Your task to perform on an android device: toggle airplane mode Image 0: 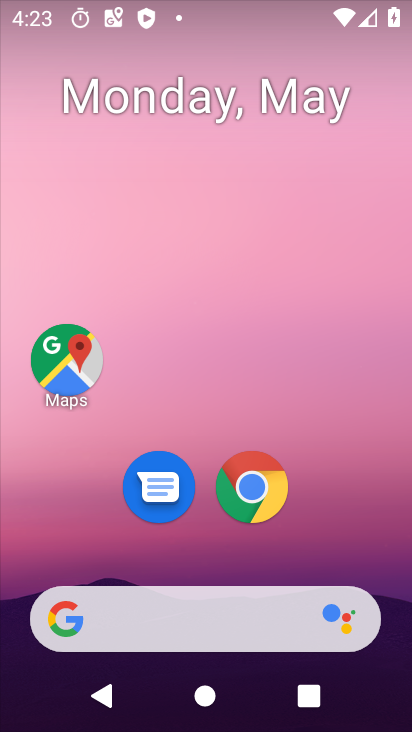
Step 0: drag from (210, 583) to (182, 392)
Your task to perform on an android device: toggle airplane mode Image 1: 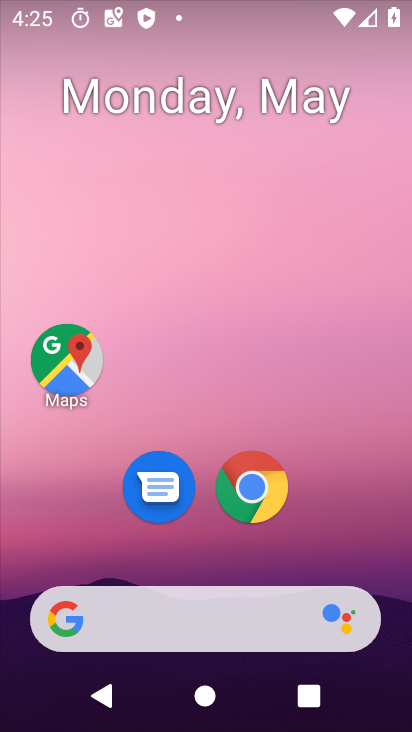
Step 1: drag from (208, 579) to (218, 260)
Your task to perform on an android device: toggle airplane mode Image 2: 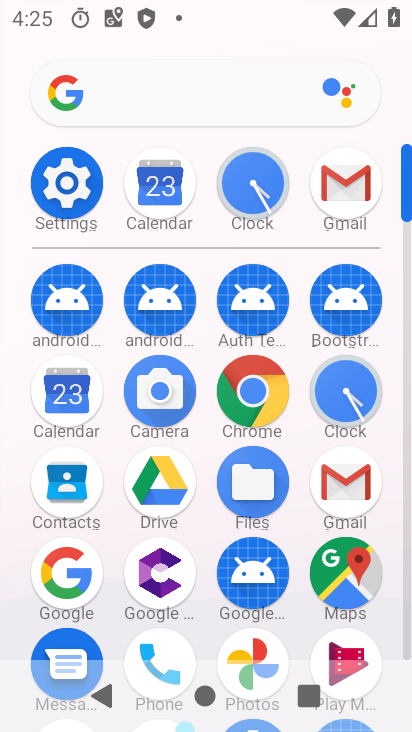
Step 2: click (47, 184)
Your task to perform on an android device: toggle airplane mode Image 3: 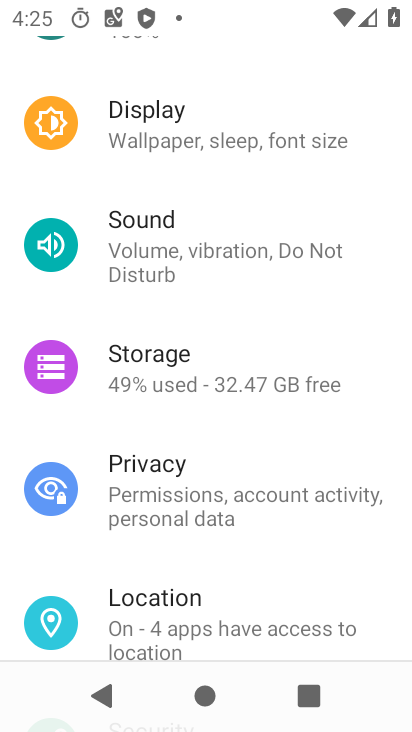
Step 3: drag from (201, 110) to (203, 453)
Your task to perform on an android device: toggle airplane mode Image 4: 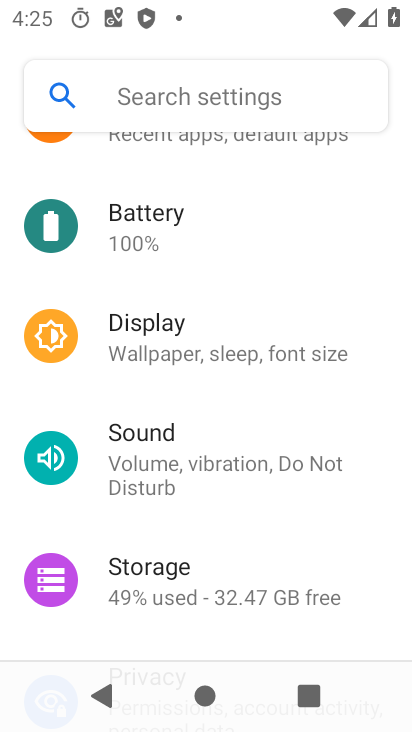
Step 4: drag from (161, 174) to (139, 533)
Your task to perform on an android device: toggle airplane mode Image 5: 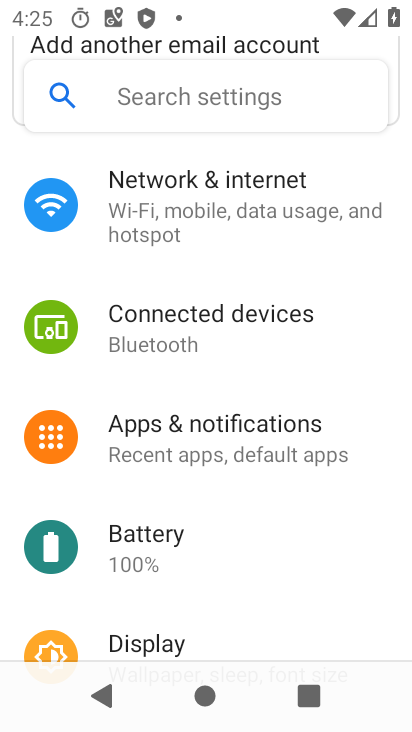
Step 5: click (193, 205)
Your task to perform on an android device: toggle airplane mode Image 6: 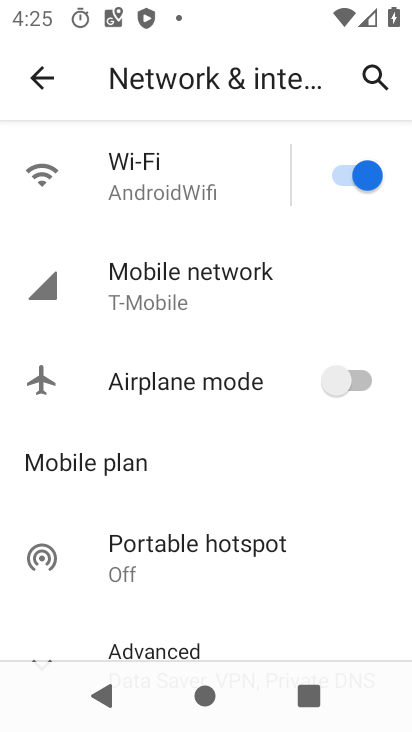
Step 6: click (359, 381)
Your task to perform on an android device: toggle airplane mode Image 7: 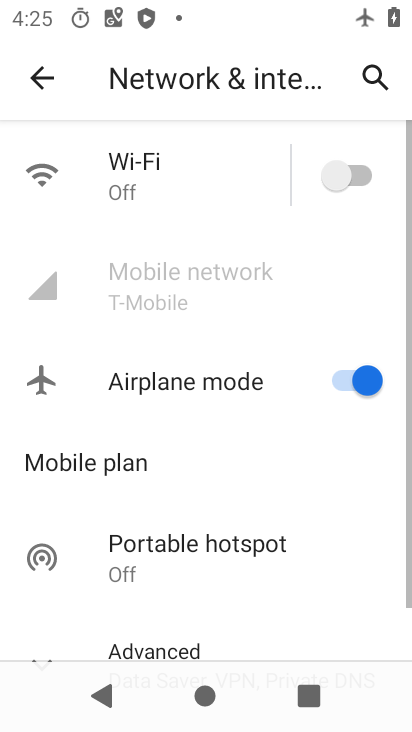
Step 7: task complete